Your task to perform on an android device: Go to sound settings Image 0: 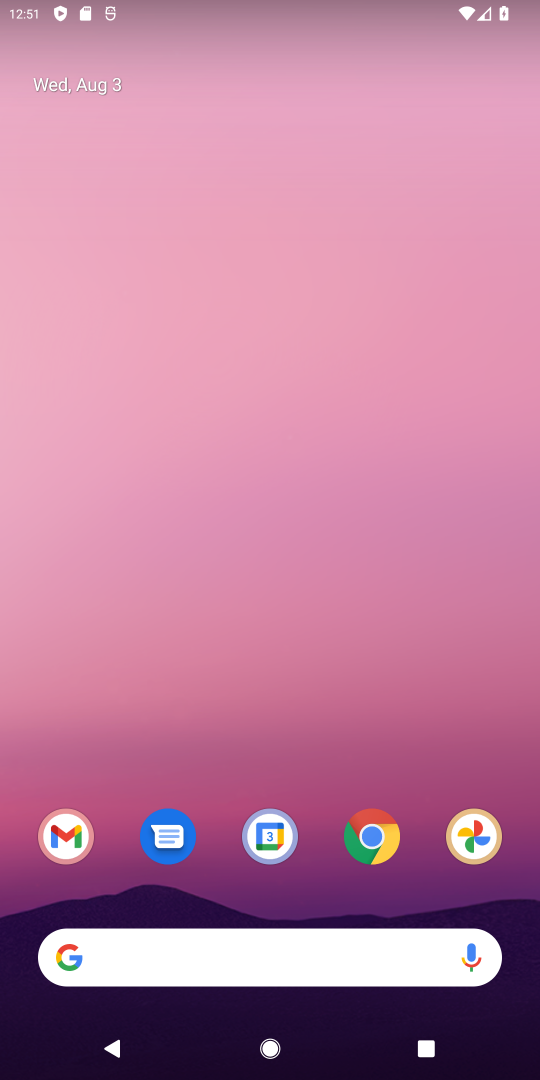
Step 0: drag from (245, 828) to (474, 1)
Your task to perform on an android device: Go to sound settings Image 1: 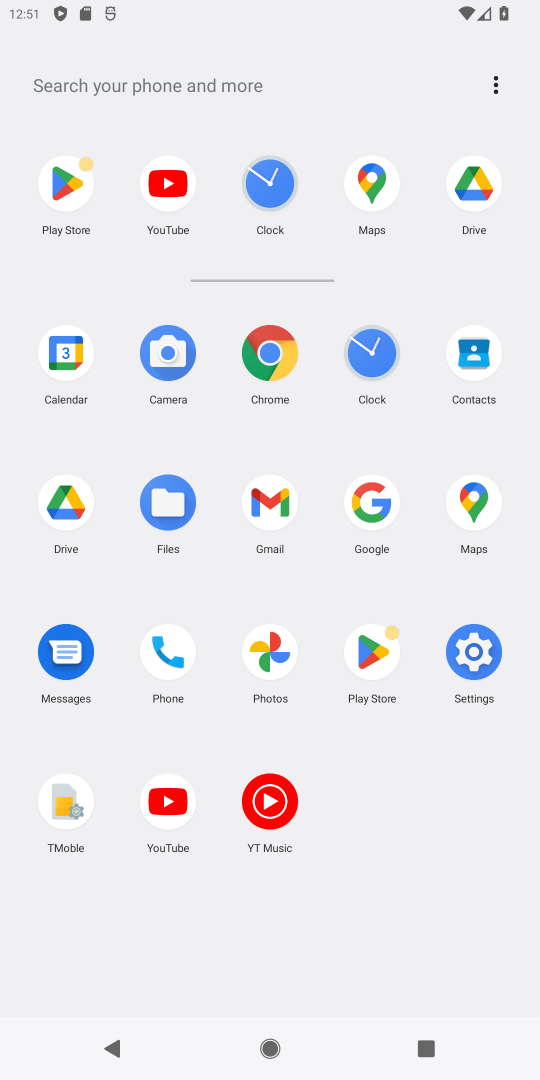
Step 1: click (464, 650)
Your task to perform on an android device: Go to sound settings Image 2: 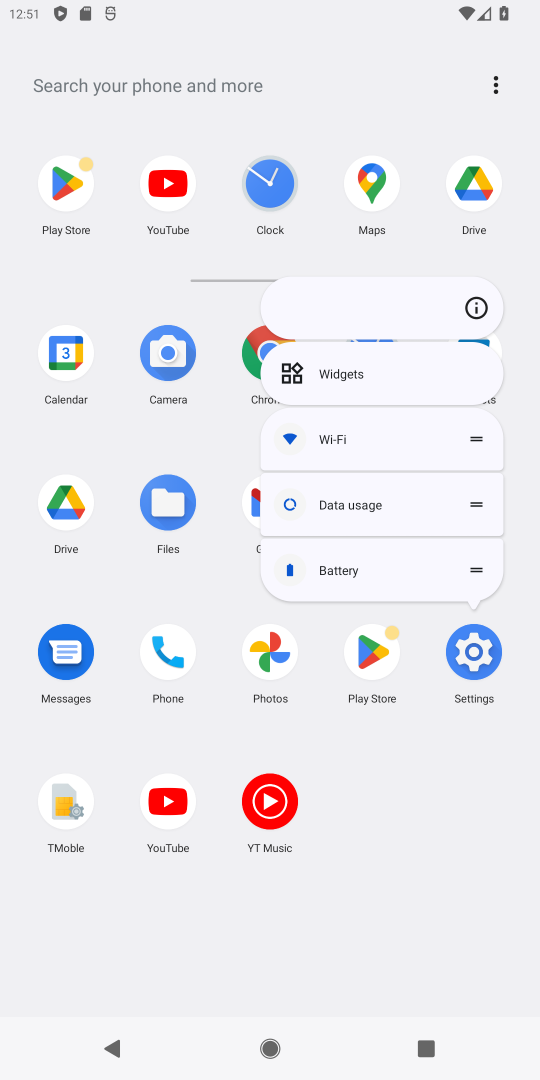
Step 2: click (476, 308)
Your task to perform on an android device: Go to sound settings Image 3: 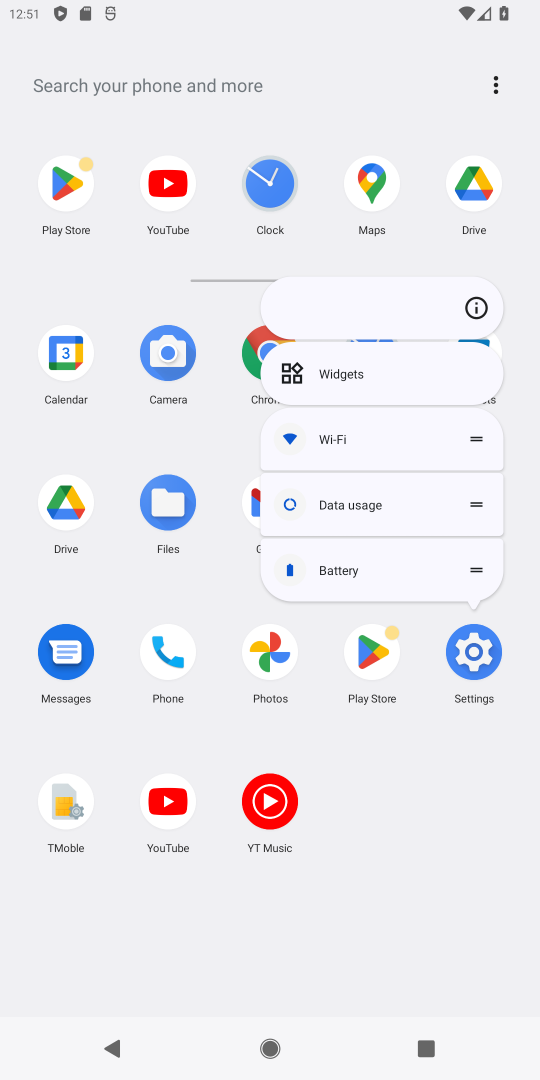
Step 3: click (471, 305)
Your task to perform on an android device: Go to sound settings Image 4: 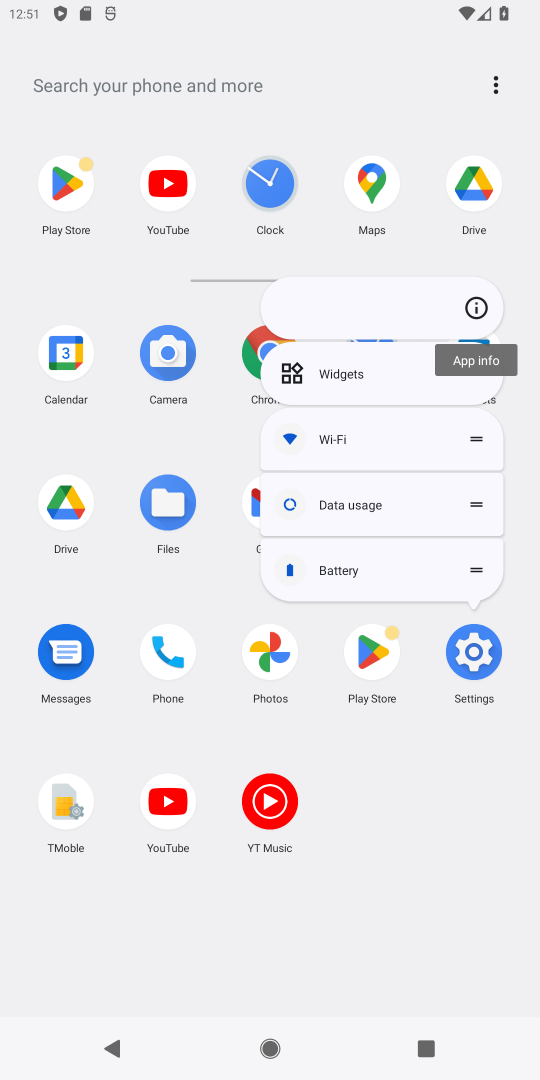
Step 4: click (471, 305)
Your task to perform on an android device: Go to sound settings Image 5: 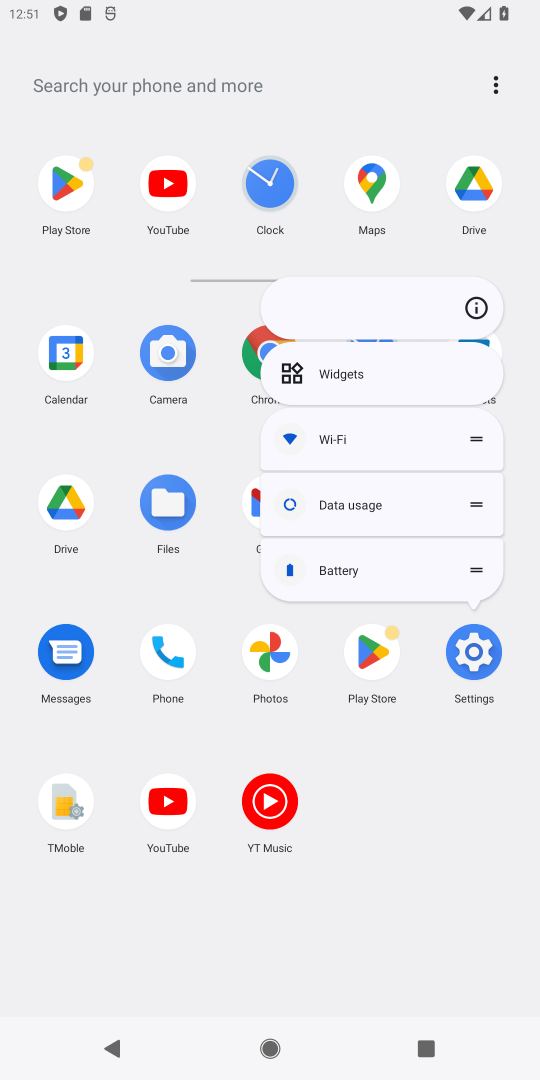
Step 5: click (477, 303)
Your task to perform on an android device: Go to sound settings Image 6: 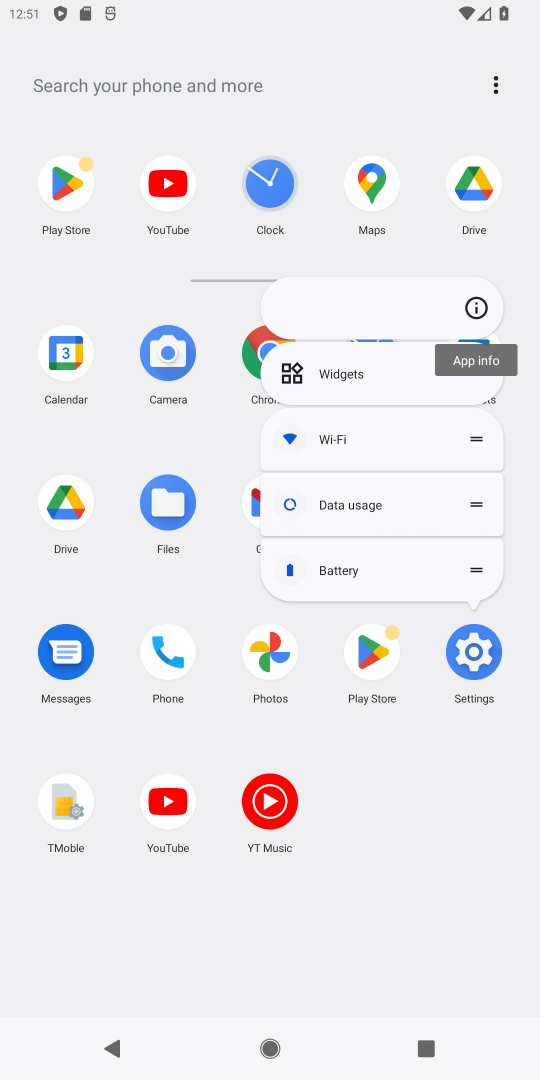
Step 6: click (475, 306)
Your task to perform on an android device: Go to sound settings Image 7: 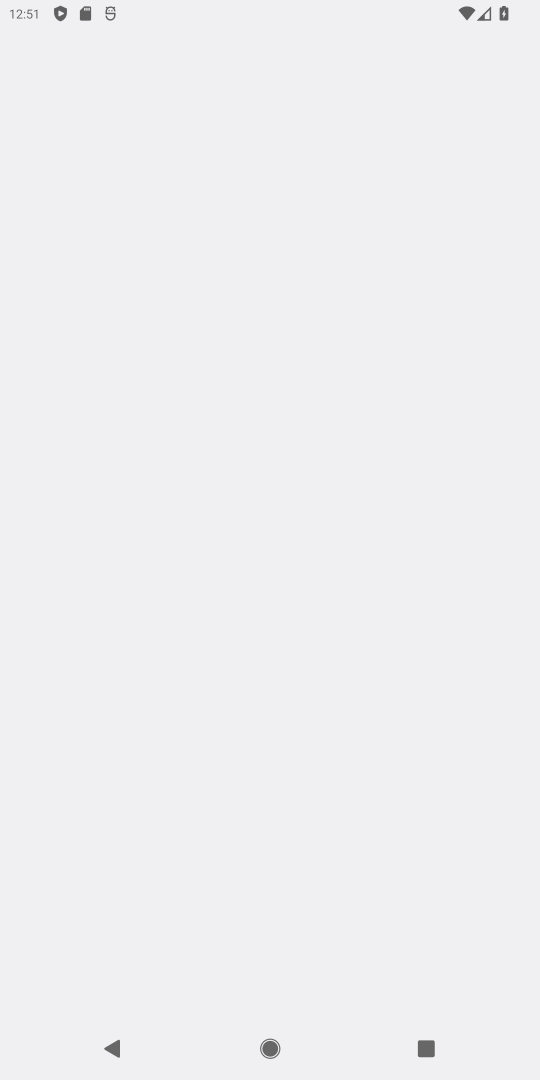
Step 7: click (475, 306)
Your task to perform on an android device: Go to sound settings Image 8: 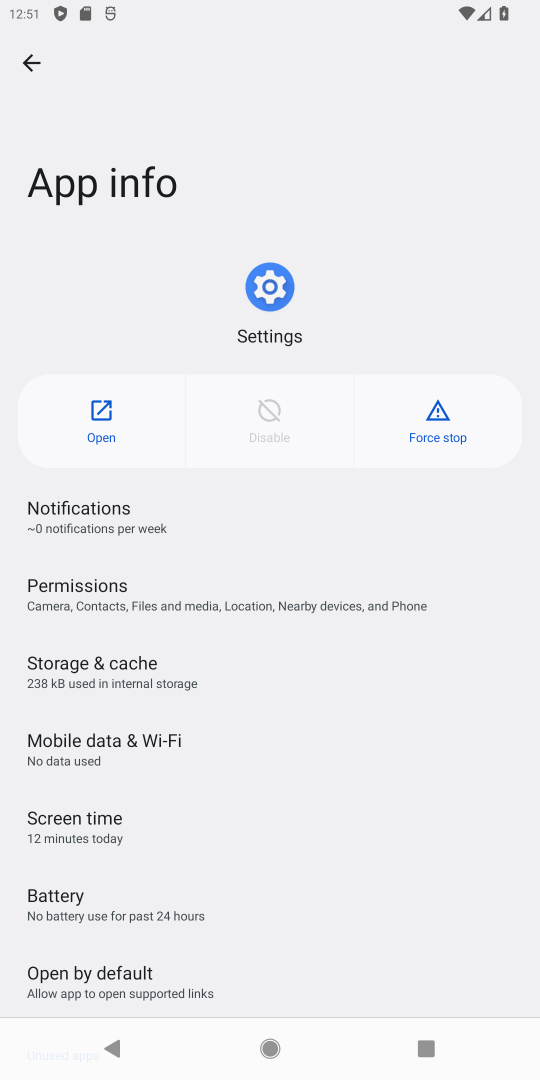
Step 8: click (108, 418)
Your task to perform on an android device: Go to sound settings Image 9: 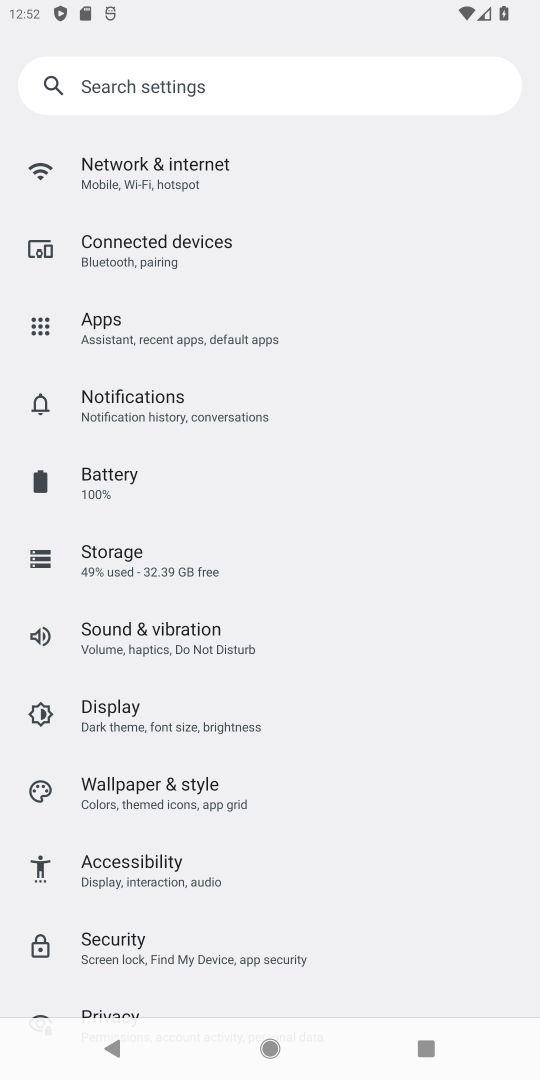
Step 9: drag from (234, 383) to (248, 887)
Your task to perform on an android device: Go to sound settings Image 10: 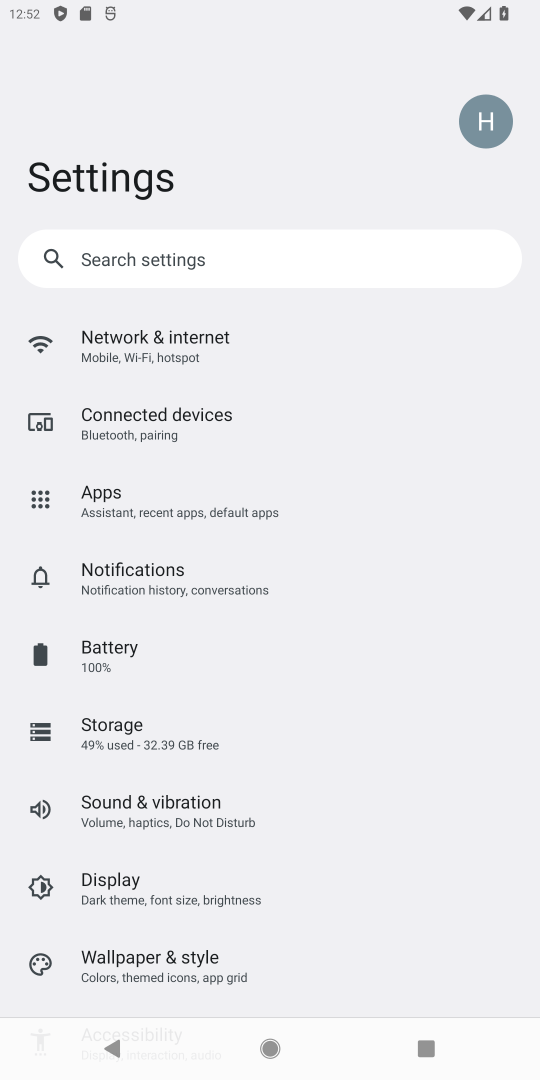
Step 10: drag from (233, 865) to (406, 124)
Your task to perform on an android device: Go to sound settings Image 11: 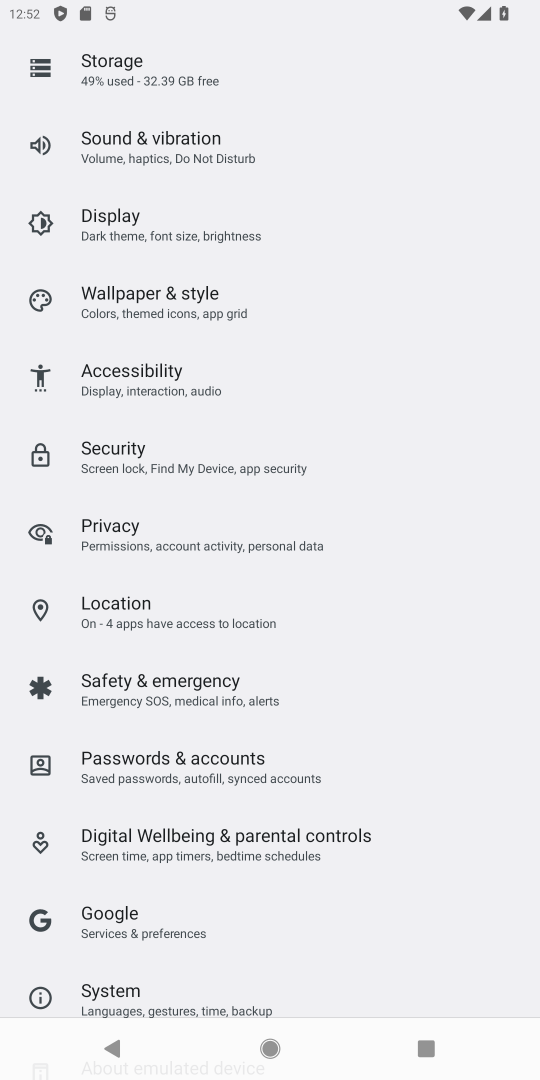
Step 11: click (242, 164)
Your task to perform on an android device: Go to sound settings Image 12: 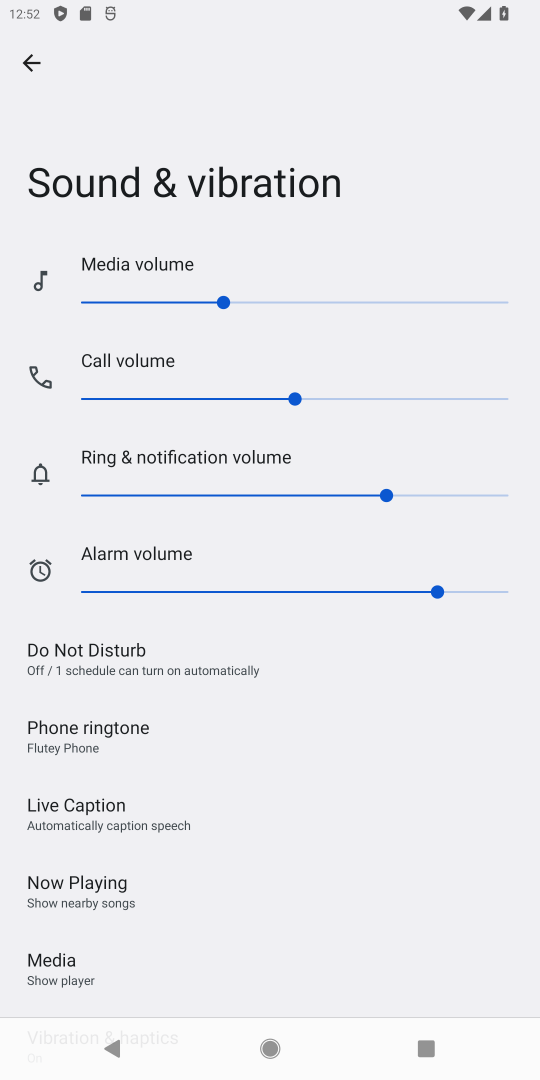
Step 12: task complete